Your task to perform on an android device: open device folders in google photos Image 0: 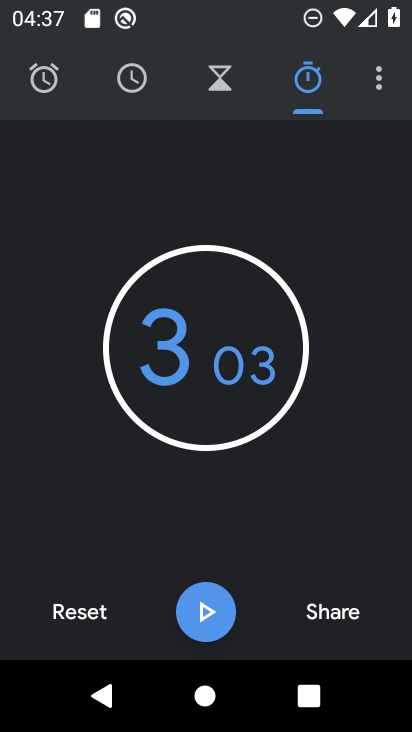
Step 0: press home button
Your task to perform on an android device: open device folders in google photos Image 1: 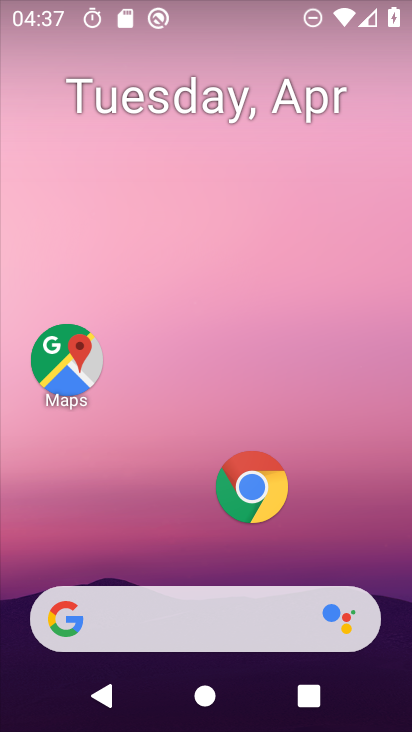
Step 1: drag from (196, 429) to (268, 49)
Your task to perform on an android device: open device folders in google photos Image 2: 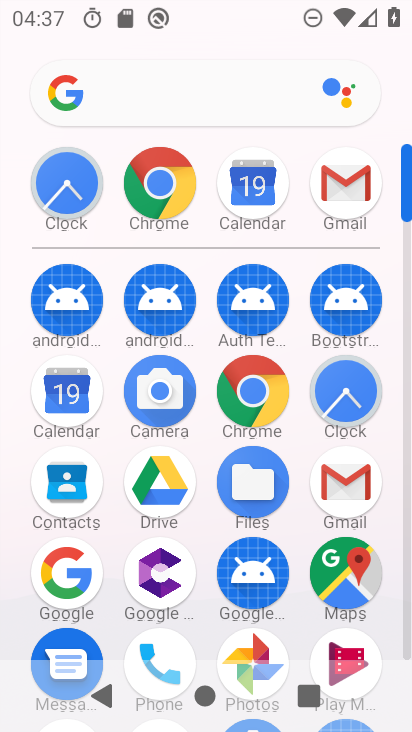
Step 2: click (246, 643)
Your task to perform on an android device: open device folders in google photos Image 3: 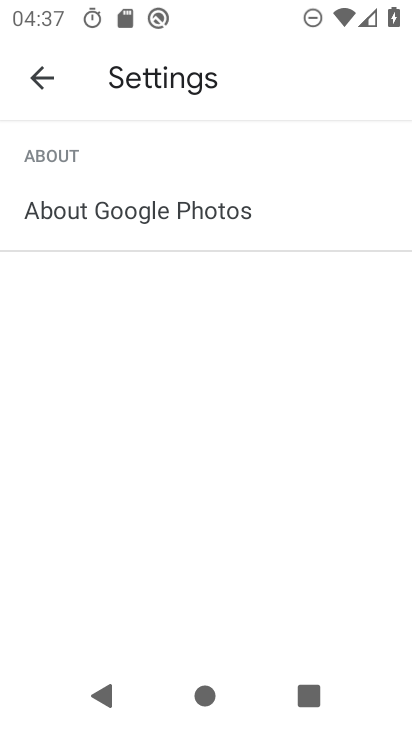
Step 3: click (30, 75)
Your task to perform on an android device: open device folders in google photos Image 4: 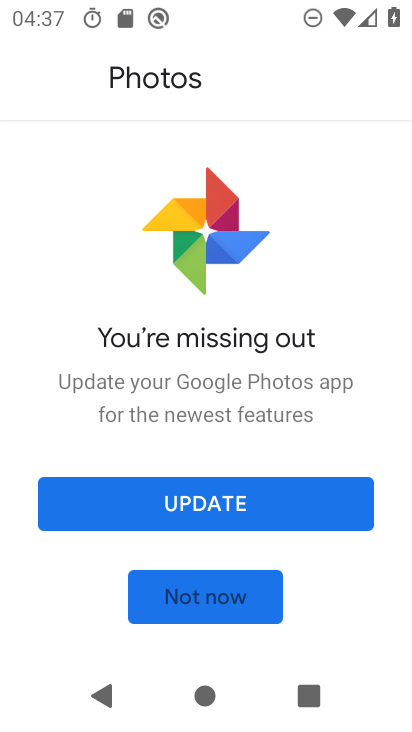
Step 4: click (178, 605)
Your task to perform on an android device: open device folders in google photos Image 5: 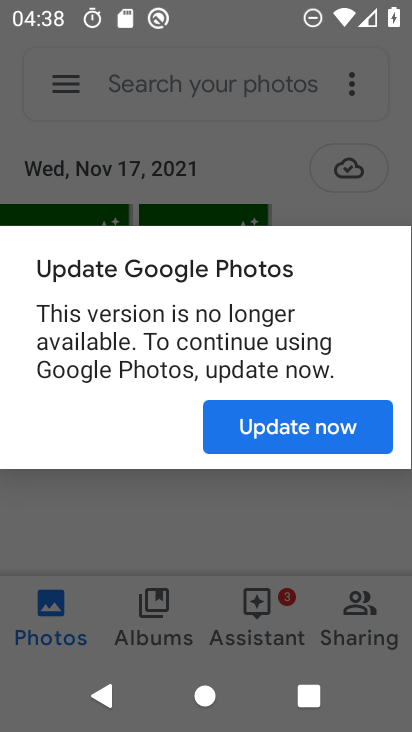
Step 5: click (264, 439)
Your task to perform on an android device: open device folders in google photos Image 6: 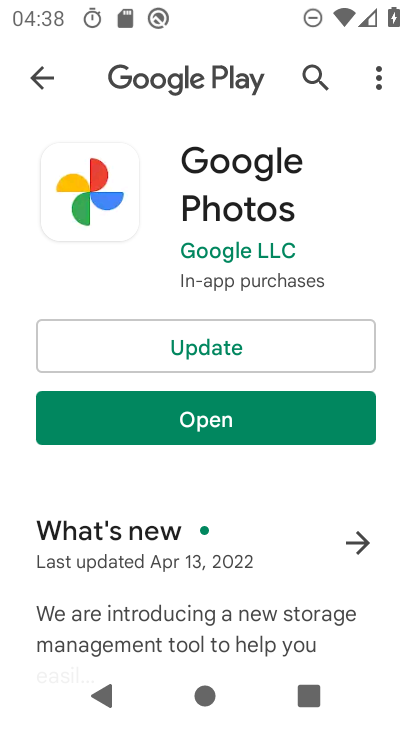
Step 6: click (213, 423)
Your task to perform on an android device: open device folders in google photos Image 7: 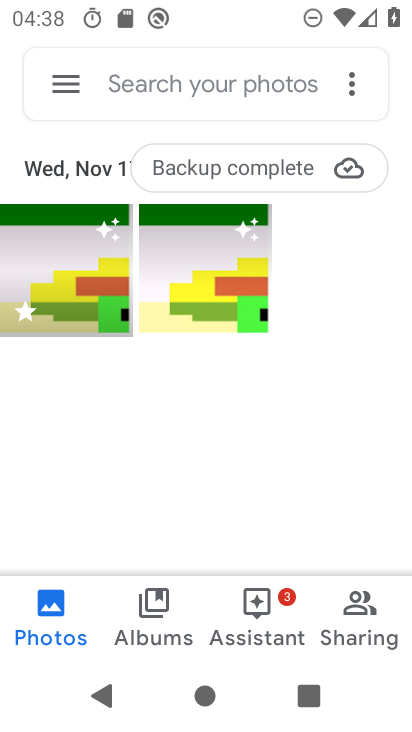
Step 7: click (51, 74)
Your task to perform on an android device: open device folders in google photos Image 8: 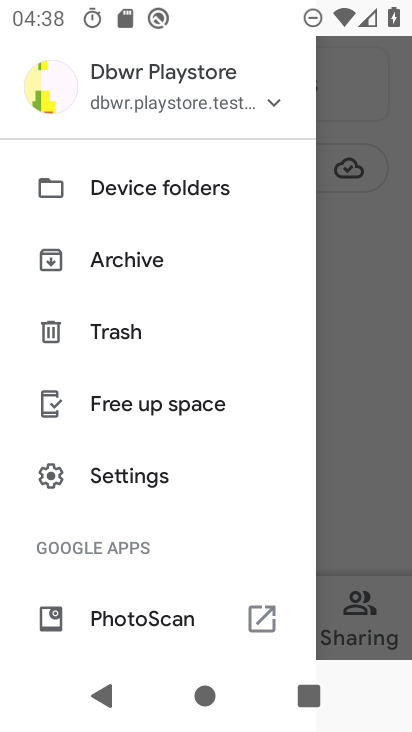
Step 8: click (142, 172)
Your task to perform on an android device: open device folders in google photos Image 9: 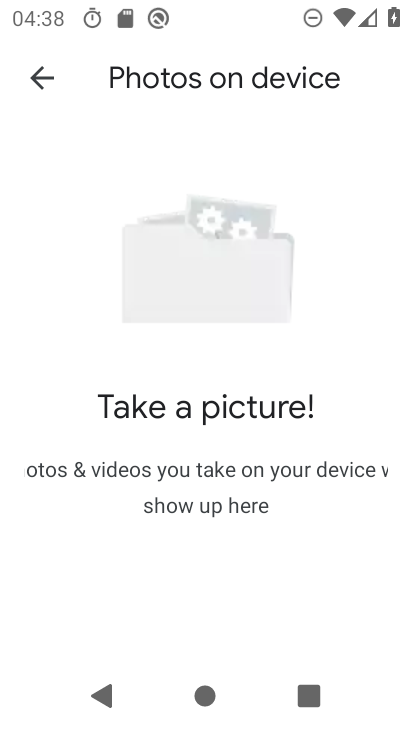
Step 9: task complete